Your task to perform on an android device: turn off sleep mode Image 0: 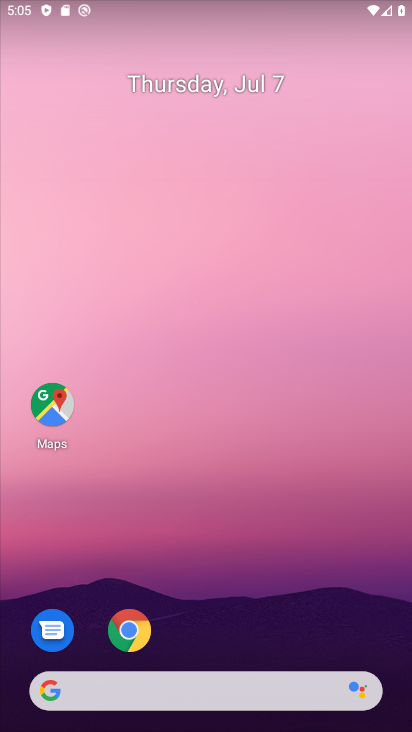
Step 0: click (221, 95)
Your task to perform on an android device: turn off sleep mode Image 1: 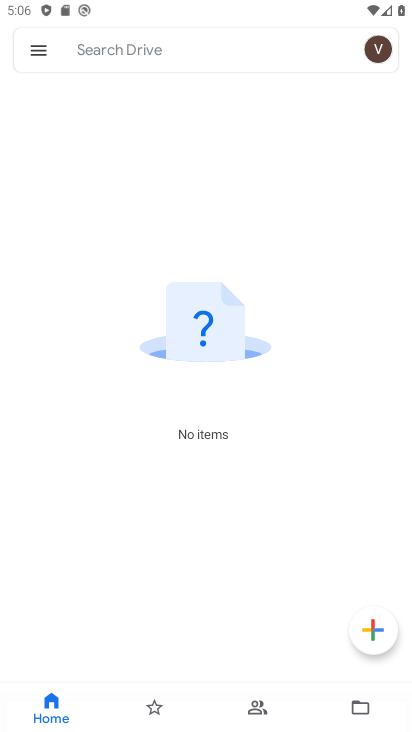
Step 1: press home button
Your task to perform on an android device: turn off sleep mode Image 2: 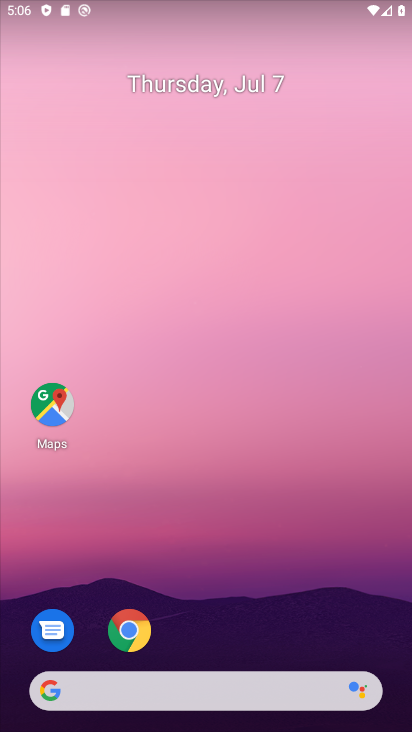
Step 2: drag from (202, 578) to (13, 152)
Your task to perform on an android device: turn off sleep mode Image 3: 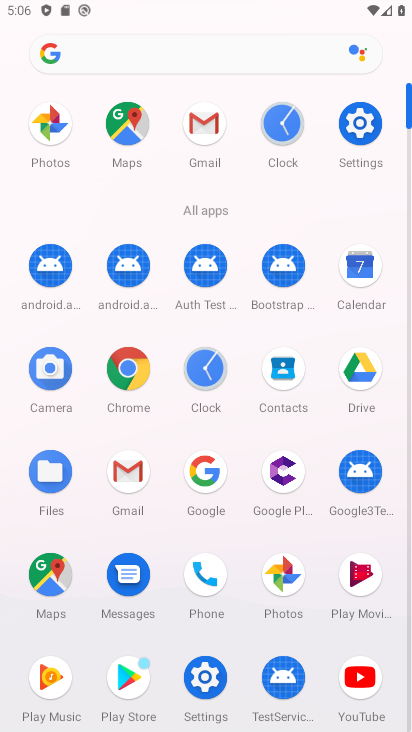
Step 3: click (379, 130)
Your task to perform on an android device: turn off sleep mode Image 4: 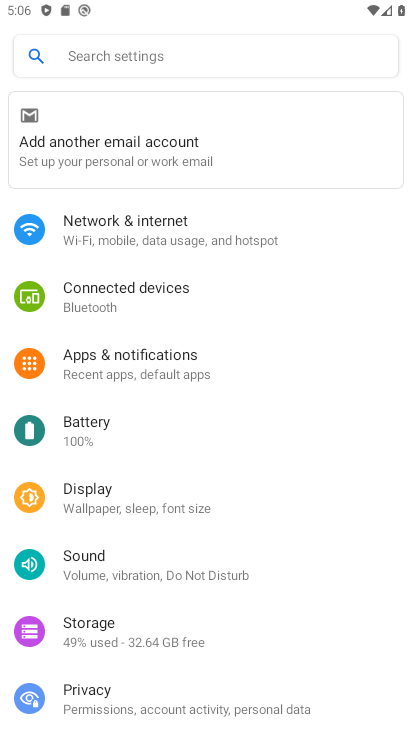
Step 4: task complete